Your task to perform on an android device: open a bookmark in the chrome app Image 0: 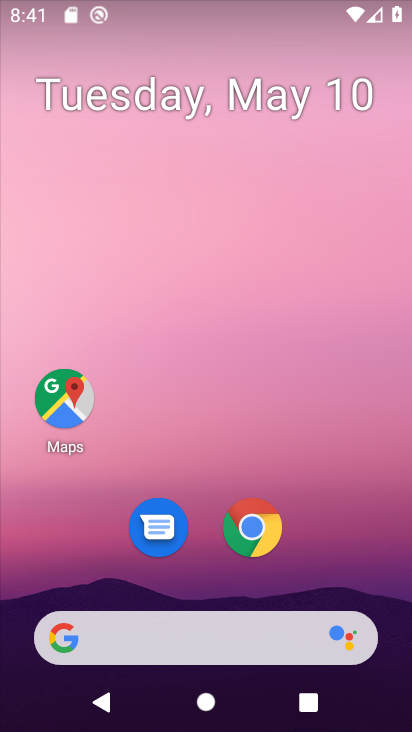
Step 0: click (263, 538)
Your task to perform on an android device: open a bookmark in the chrome app Image 1: 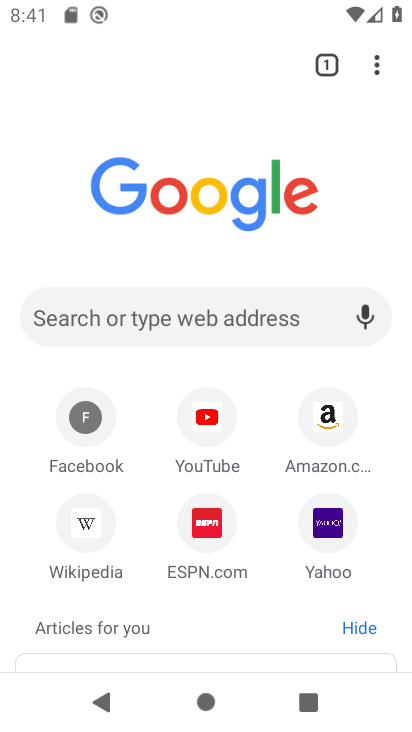
Step 1: task complete